Your task to perform on an android device: Open location settings Image 0: 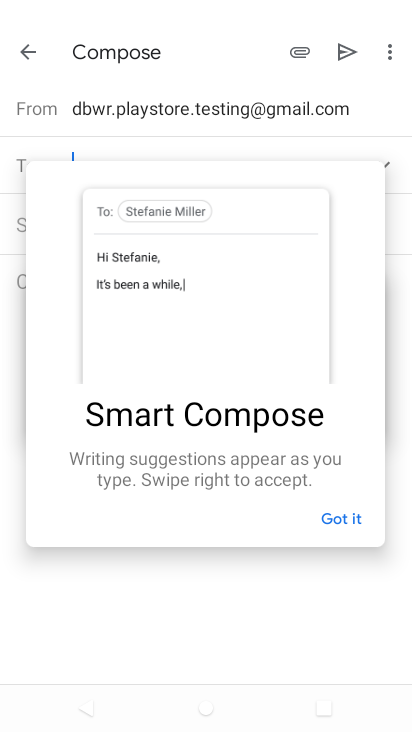
Step 0: press home button
Your task to perform on an android device: Open location settings Image 1: 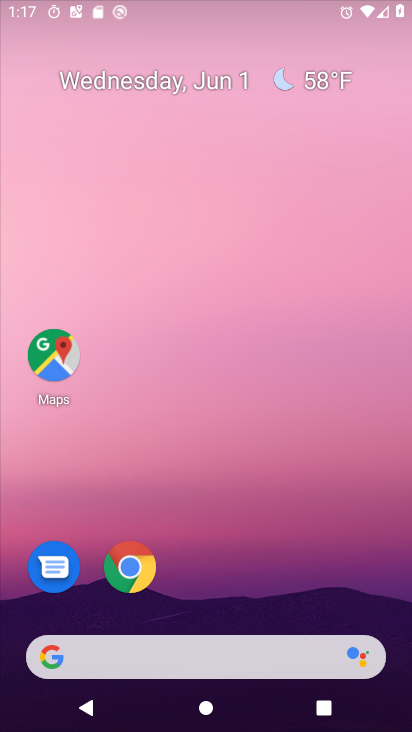
Step 1: drag from (254, 582) to (219, 34)
Your task to perform on an android device: Open location settings Image 2: 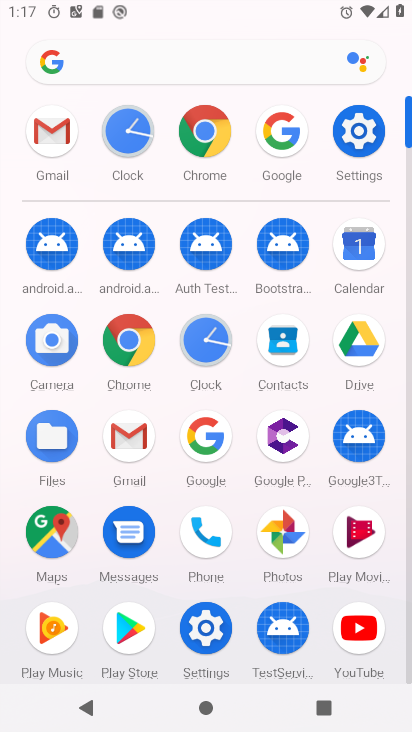
Step 2: click (357, 127)
Your task to perform on an android device: Open location settings Image 3: 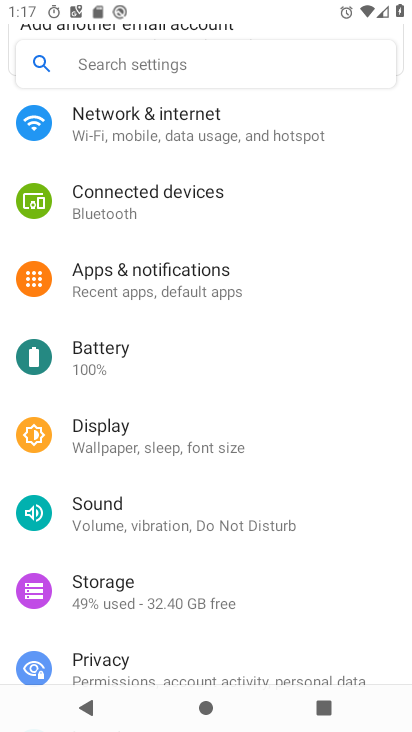
Step 3: drag from (195, 551) to (175, 174)
Your task to perform on an android device: Open location settings Image 4: 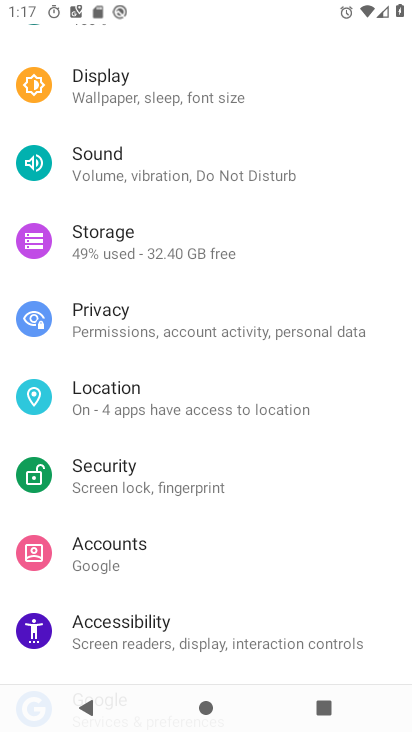
Step 4: click (150, 393)
Your task to perform on an android device: Open location settings Image 5: 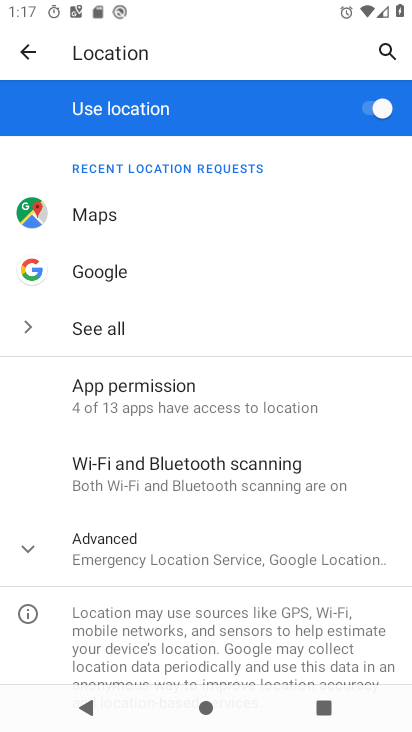
Step 5: task complete